Your task to perform on an android device: Open privacy settings Image 0: 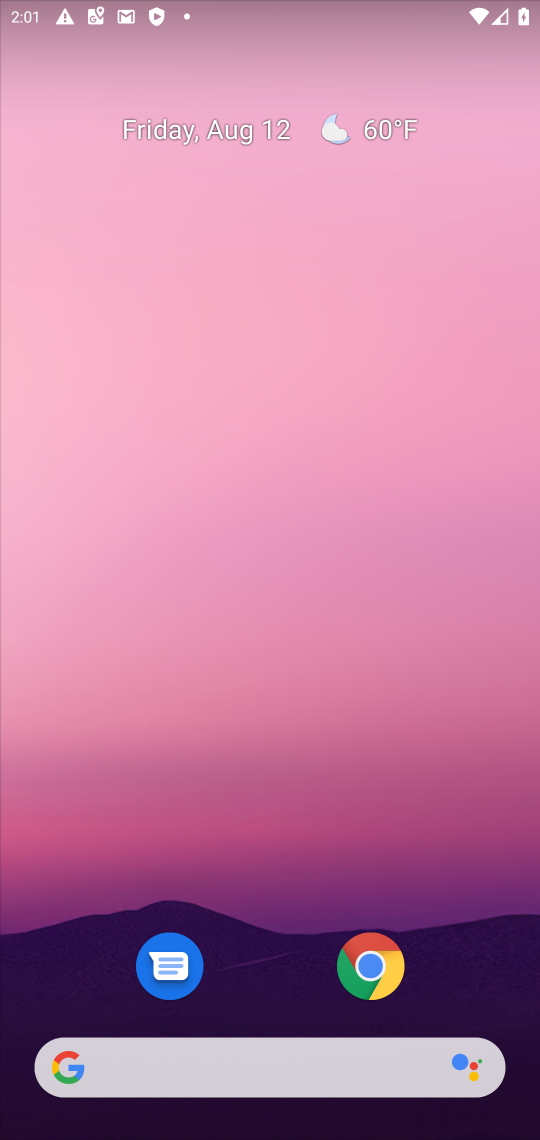
Step 0: drag from (282, 905) to (474, 31)
Your task to perform on an android device: Open privacy settings Image 1: 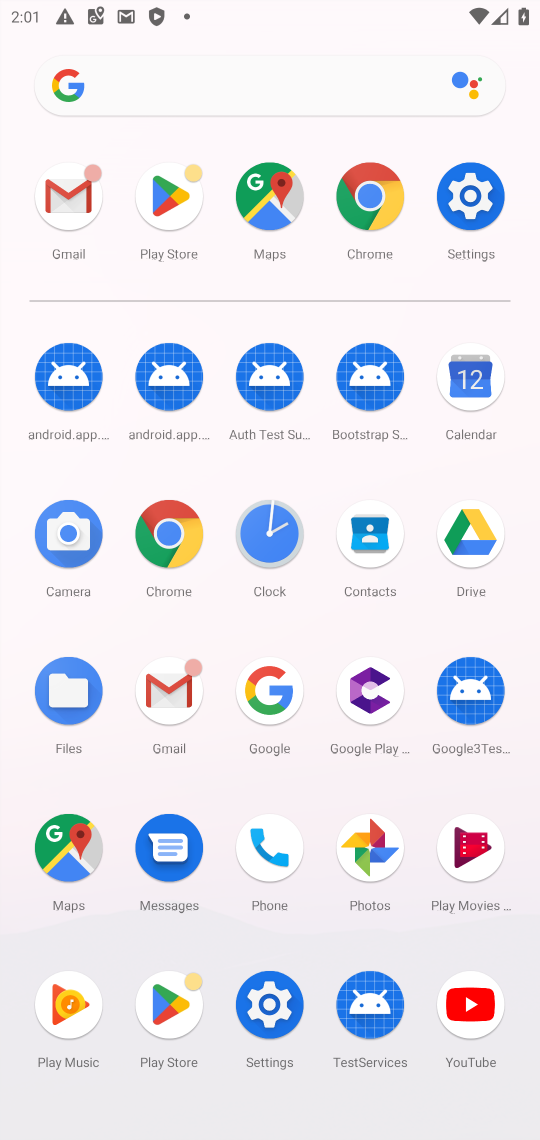
Step 1: click (479, 195)
Your task to perform on an android device: Open privacy settings Image 2: 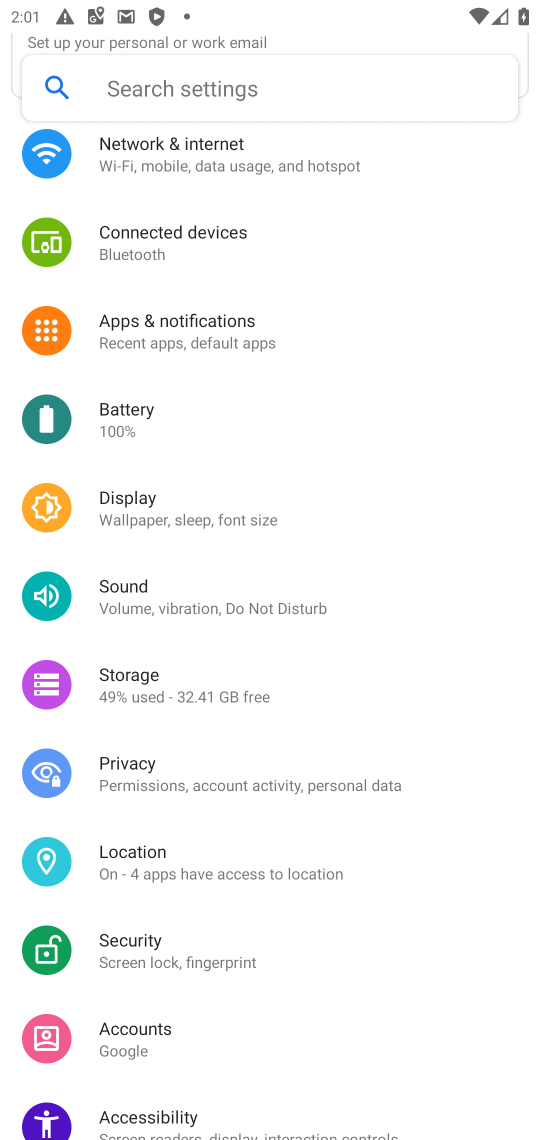
Step 2: click (197, 767)
Your task to perform on an android device: Open privacy settings Image 3: 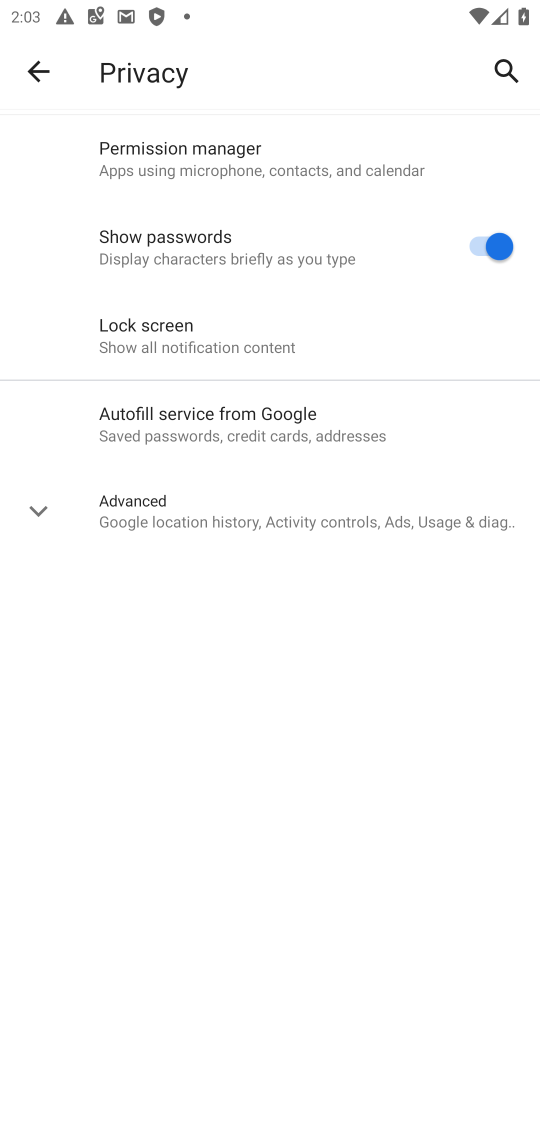
Step 3: task complete